Your task to perform on an android device: uninstall "Messenger Lite" Image 0: 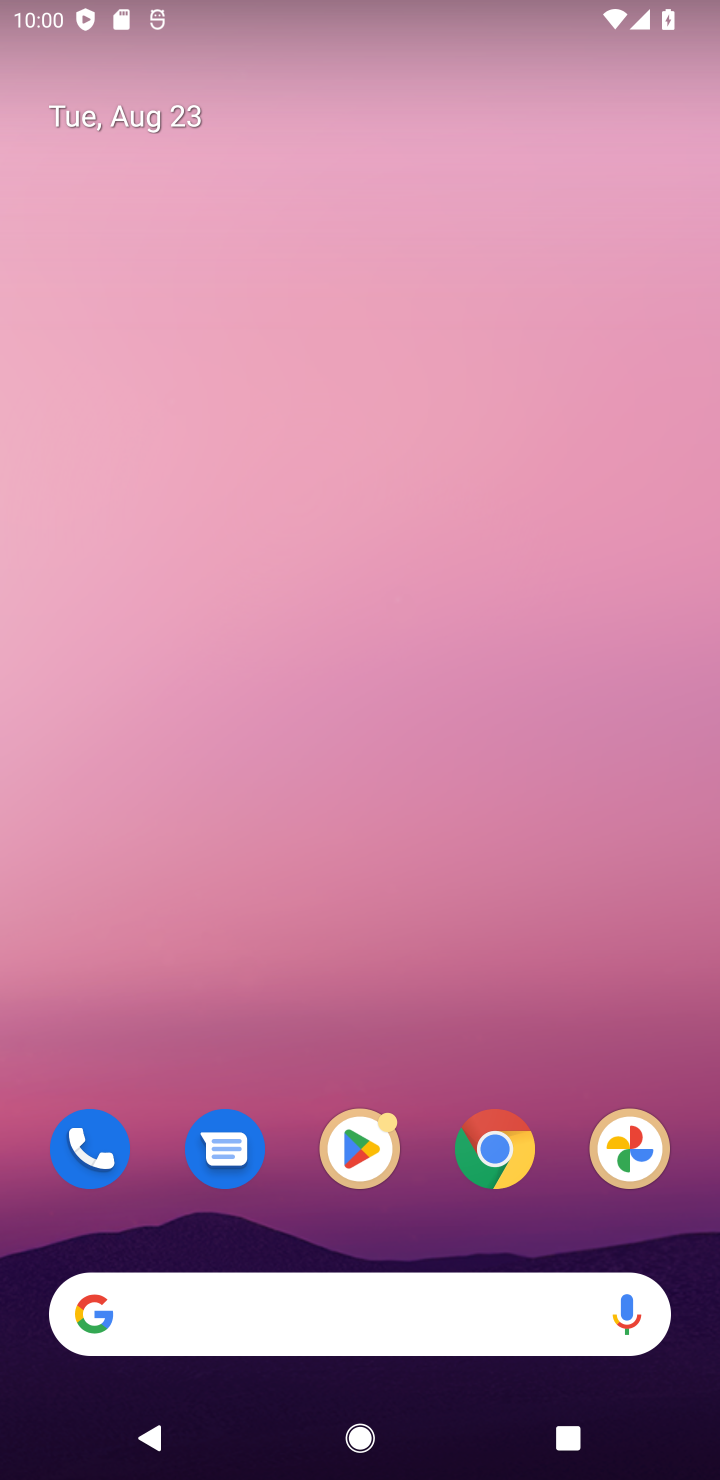
Step 0: click (357, 1163)
Your task to perform on an android device: uninstall "Messenger Lite" Image 1: 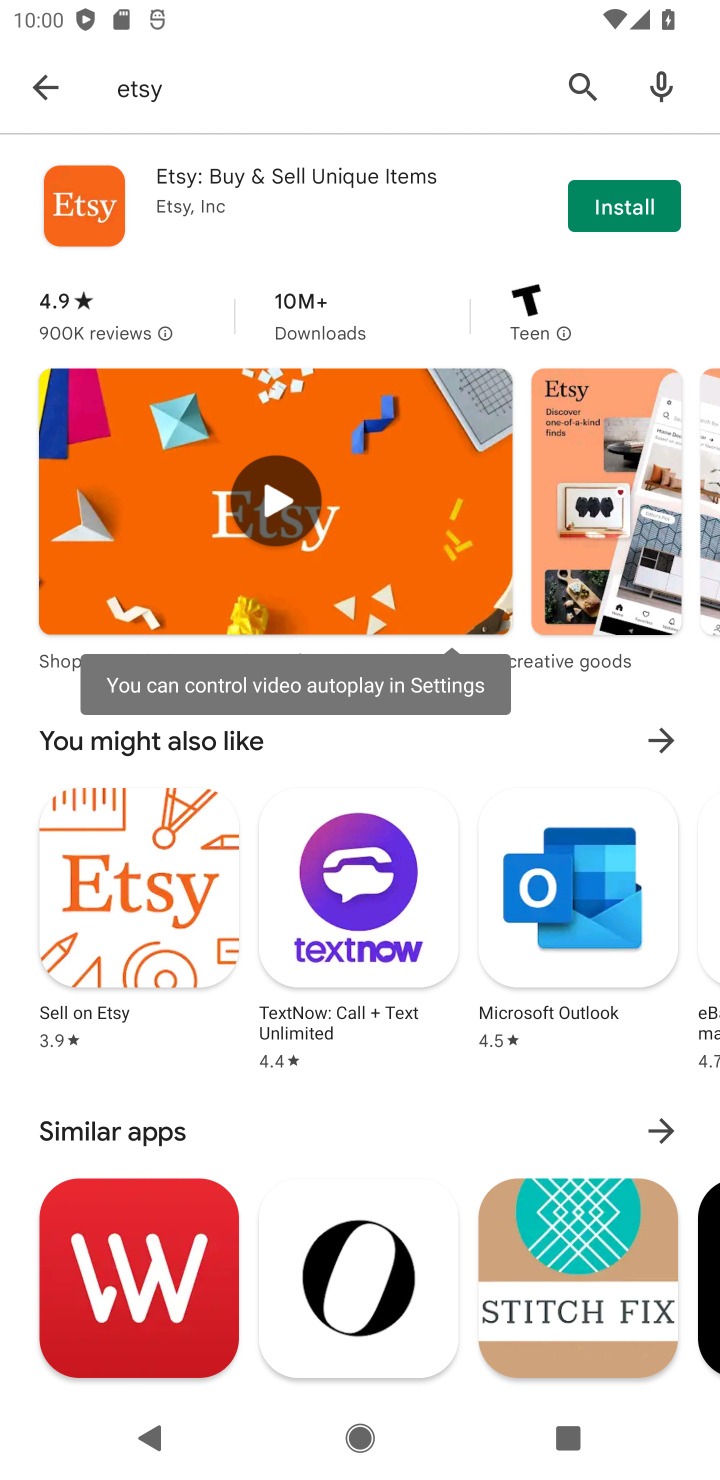
Step 1: click (584, 111)
Your task to perform on an android device: uninstall "Messenger Lite" Image 2: 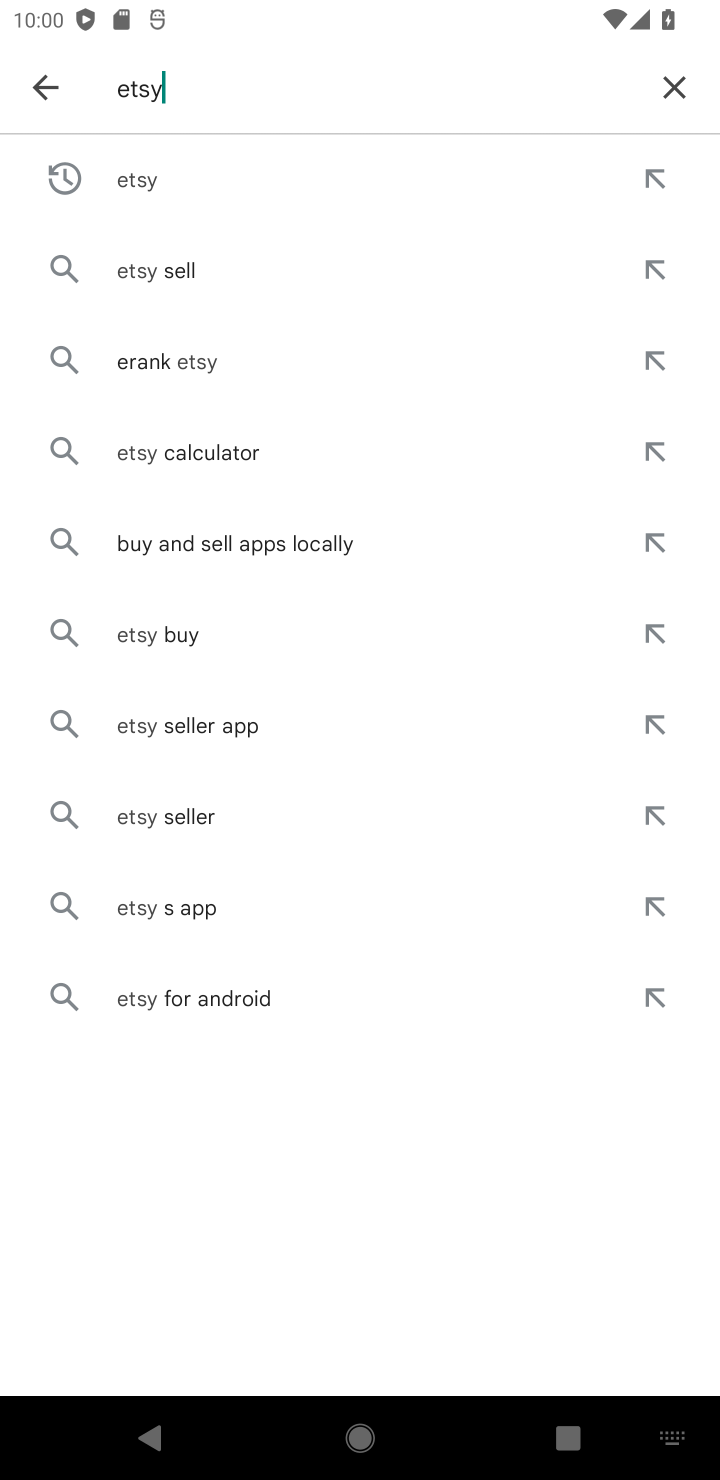
Step 2: click (671, 94)
Your task to perform on an android device: uninstall "Messenger Lite" Image 3: 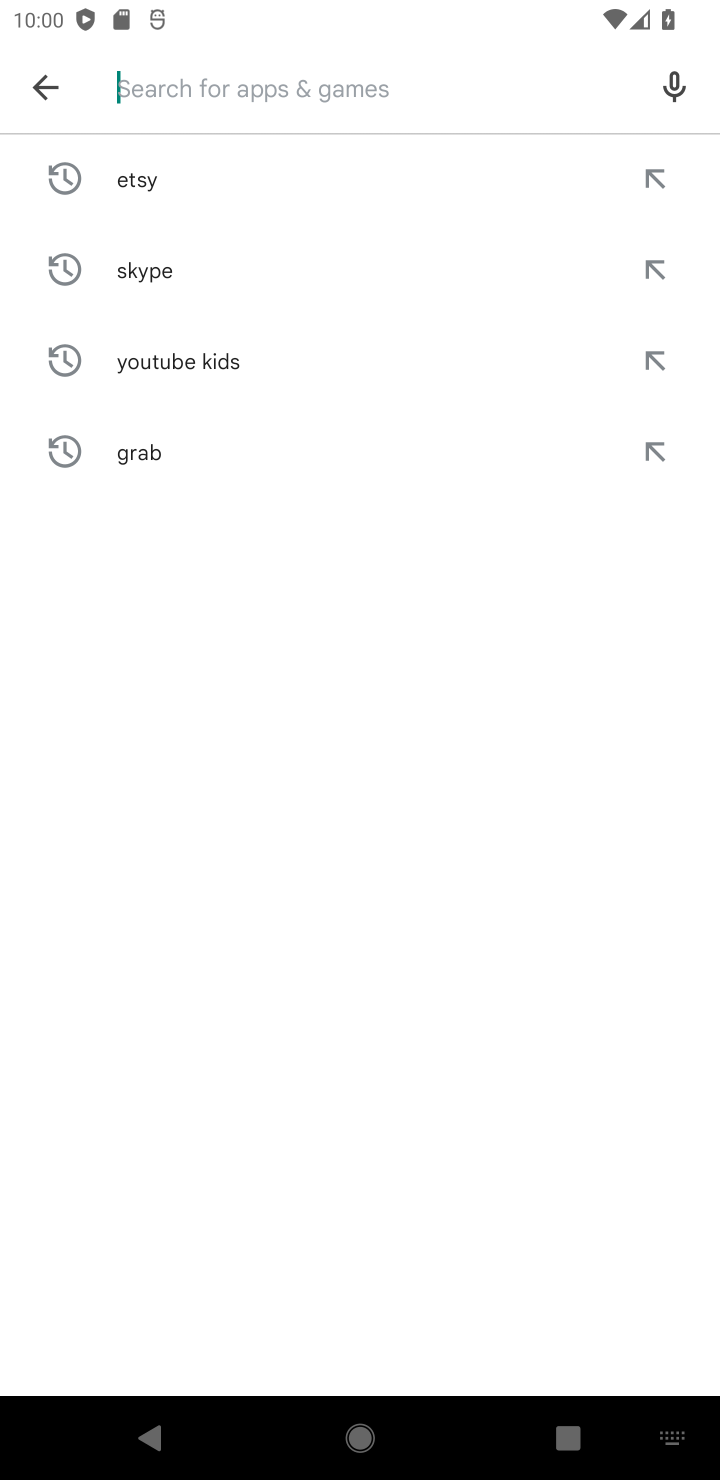
Step 3: type "message lite"
Your task to perform on an android device: uninstall "Messenger Lite" Image 4: 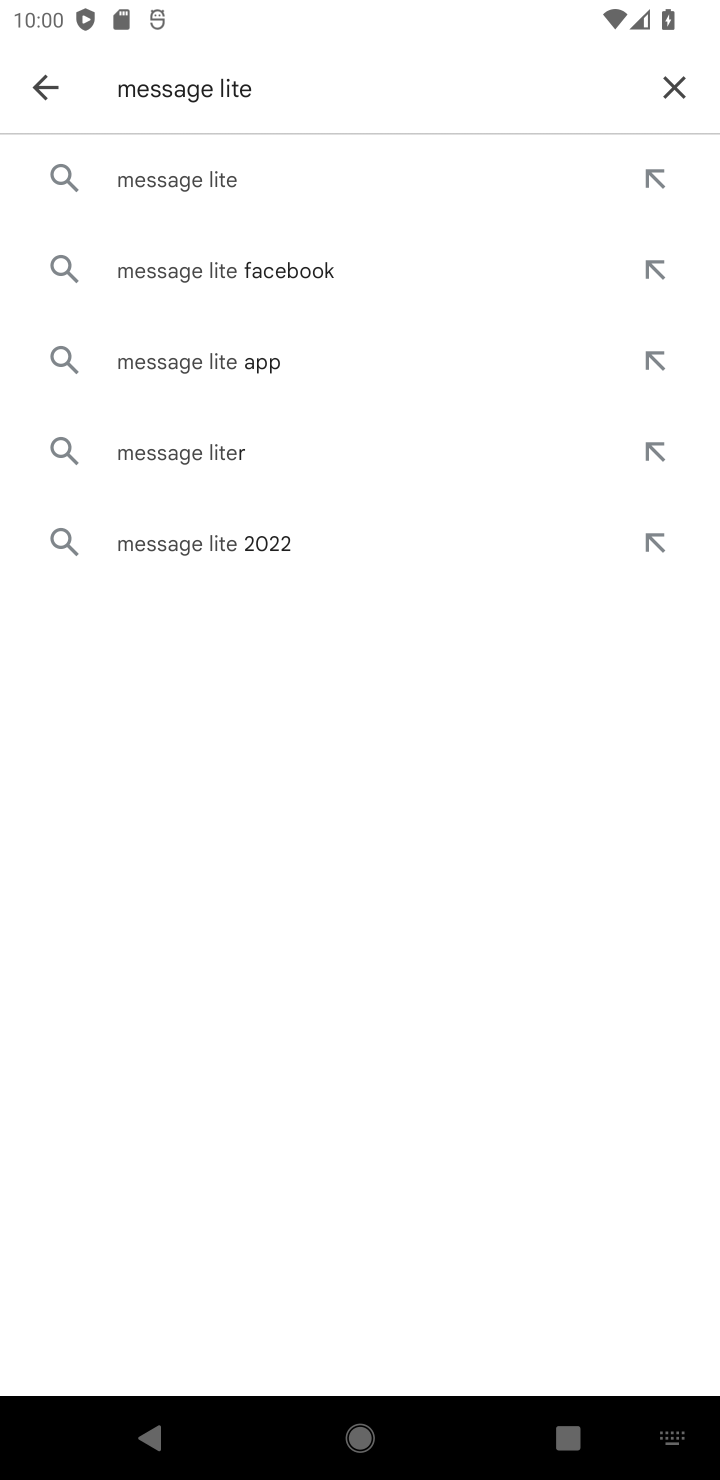
Step 4: click (189, 192)
Your task to perform on an android device: uninstall "Messenger Lite" Image 5: 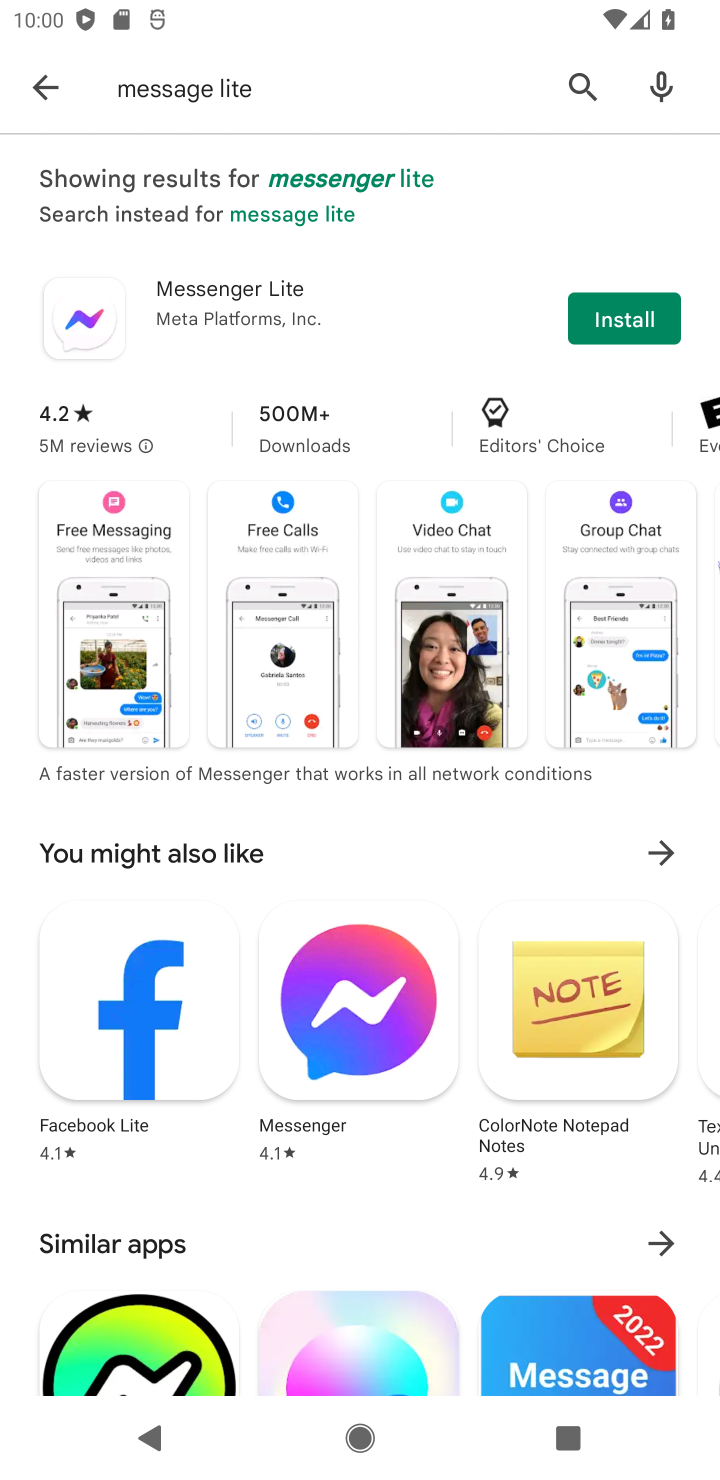
Step 5: click (619, 298)
Your task to perform on an android device: uninstall "Messenger Lite" Image 6: 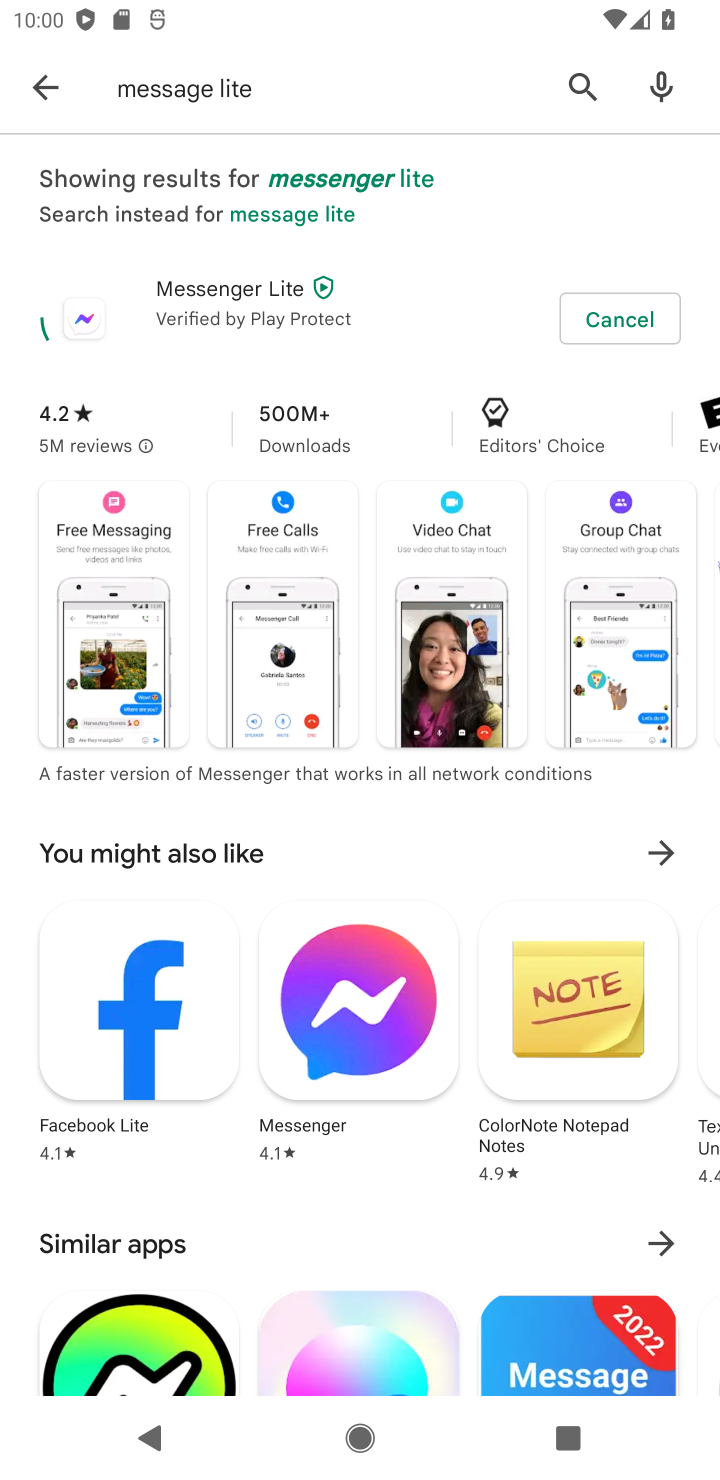
Step 6: task complete